Your task to perform on an android device: Is it going to rain this weekend? Image 0: 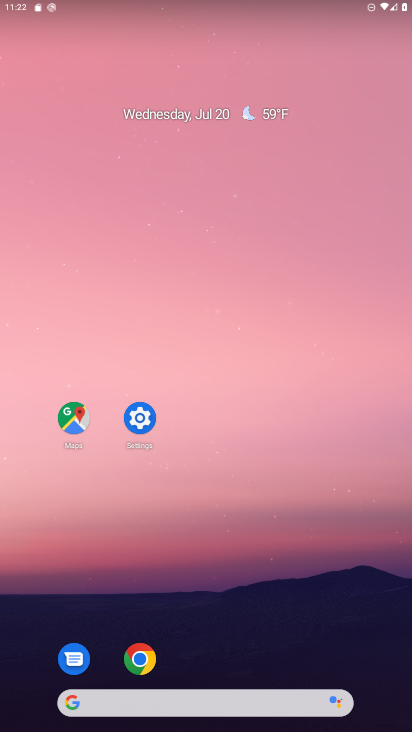
Step 0: press home button
Your task to perform on an android device: Is it going to rain this weekend? Image 1: 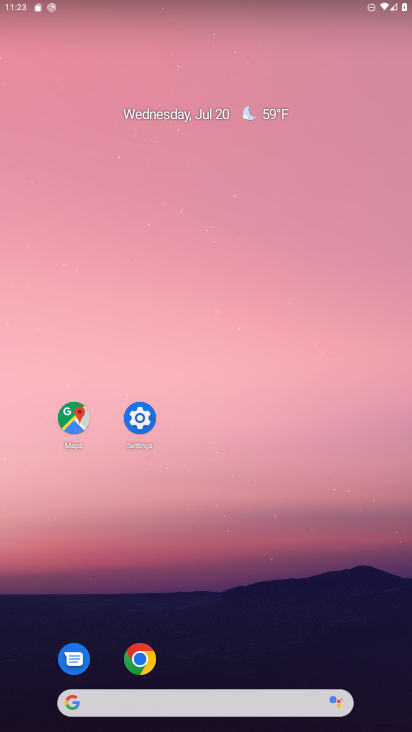
Step 1: drag from (392, 706) to (350, 139)
Your task to perform on an android device: Is it going to rain this weekend? Image 2: 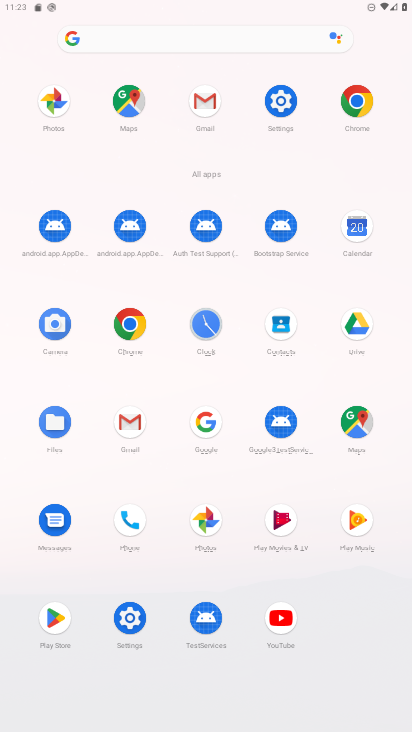
Step 2: click (205, 423)
Your task to perform on an android device: Is it going to rain this weekend? Image 3: 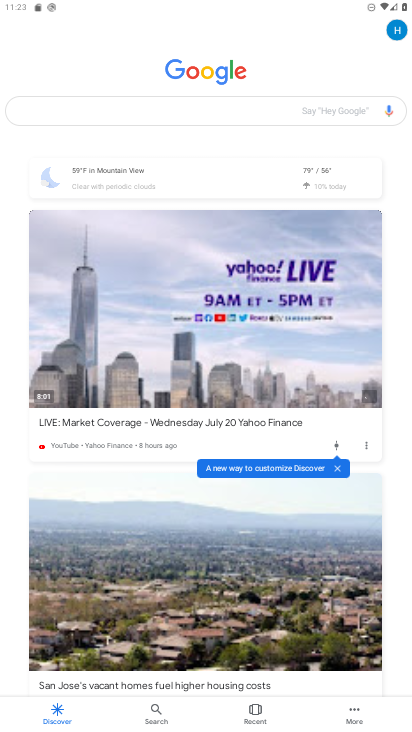
Step 3: click (322, 175)
Your task to perform on an android device: Is it going to rain this weekend? Image 4: 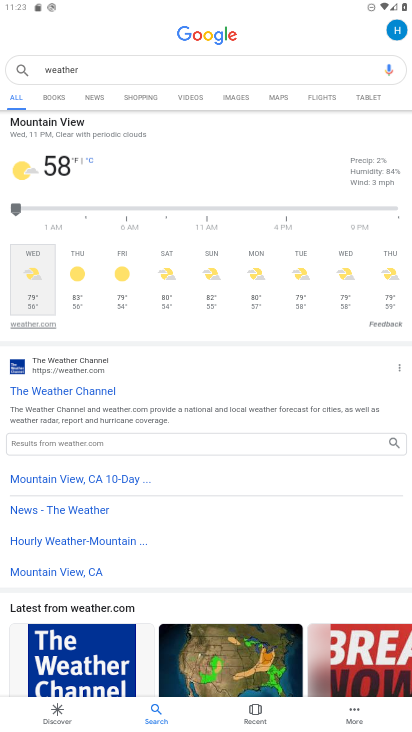
Step 4: task complete